Your task to perform on an android device: set an alarm Image 0: 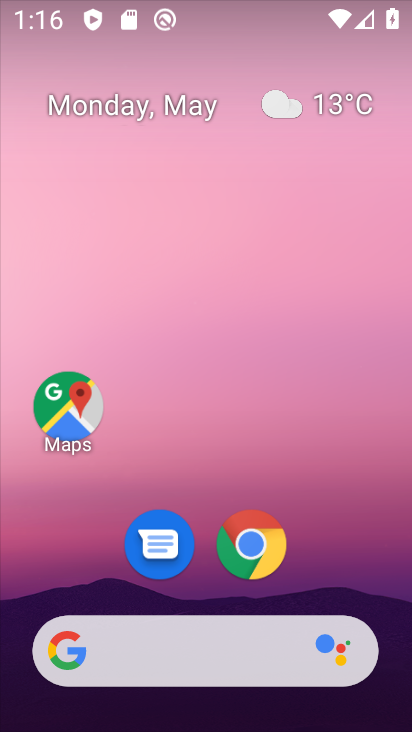
Step 0: drag from (404, 645) to (303, 89)
Your task to perform on an android device: set an alarm Image 1: 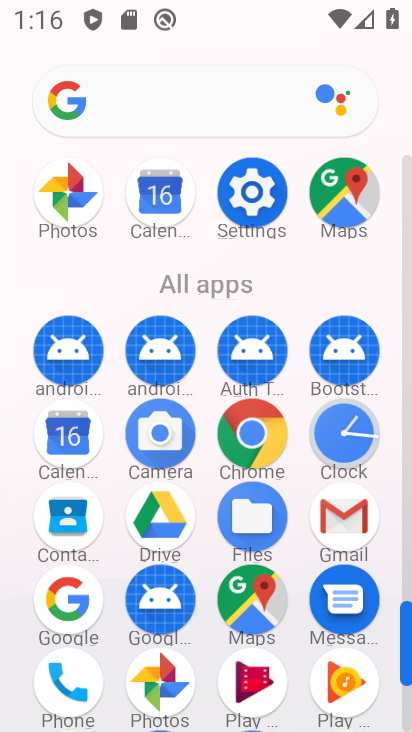
Step 1: click (343, 432)
Your task to perform on an android device: set an alarm Image 2: 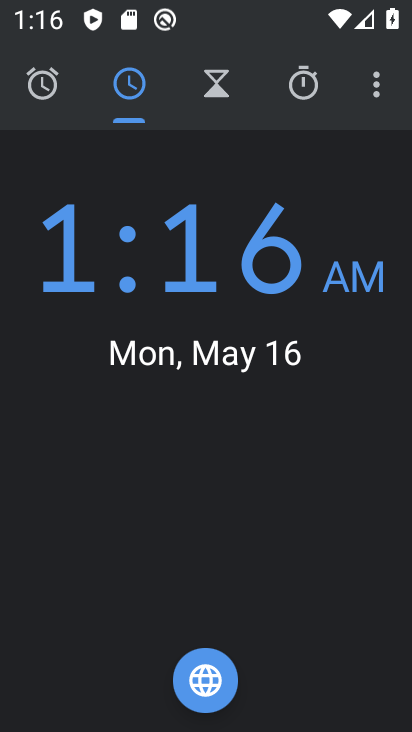
Step 2: click (44, 86)
Your task to perform on an android device: set an alarm Image 3: 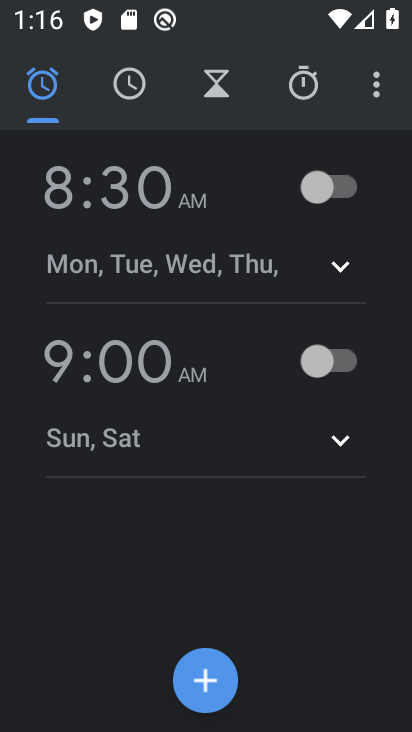
Step 3: click (82, 210)
Your task to perform on an android device: set an alarm Image 4: 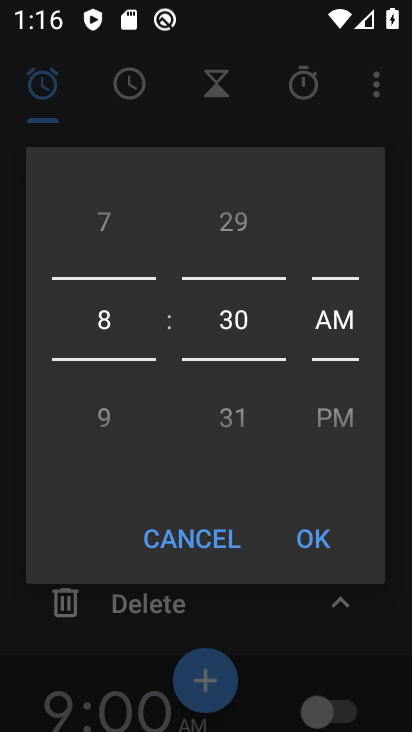
Step 4: drag from (109, 259) to (120, 442)
Your task to perform on an android device: set an alarm Image 5: 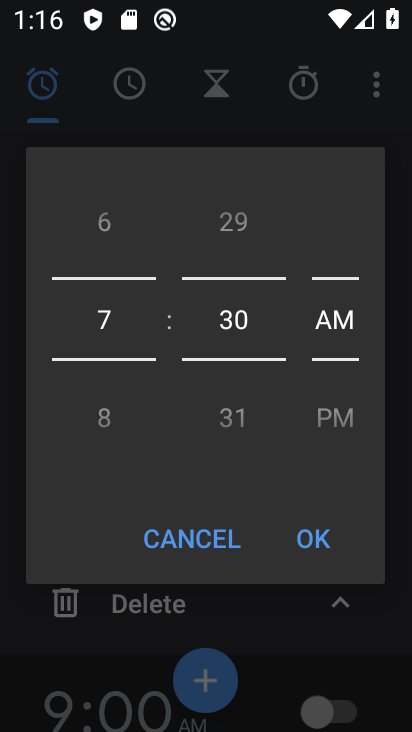
Step 5: drag from (103, 237) to (110, 373)
Your task to perform on an android device: set an alarm Image 6: 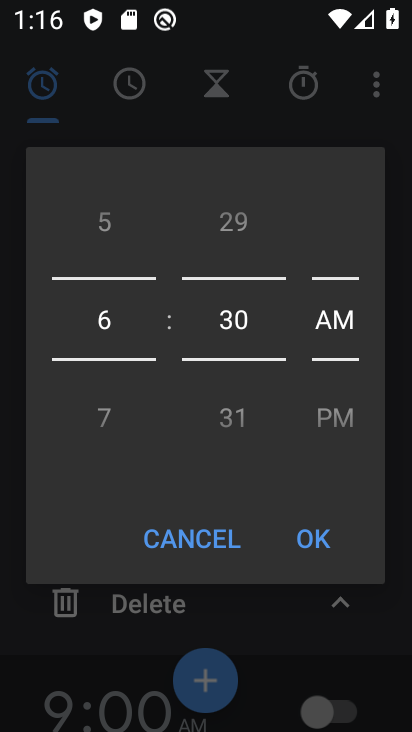
Step 6: click (312, 535)
Your task to perform on an android device: set an alarm Image 7: 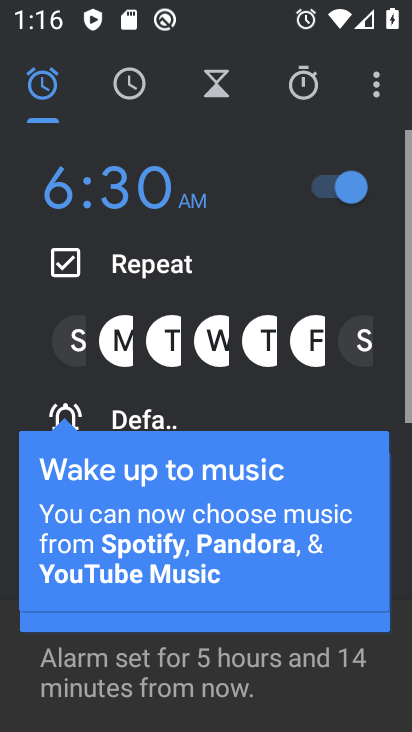
Step 7: click (312, 535)
Your task to perform on an android device: set an alarm Image 8: 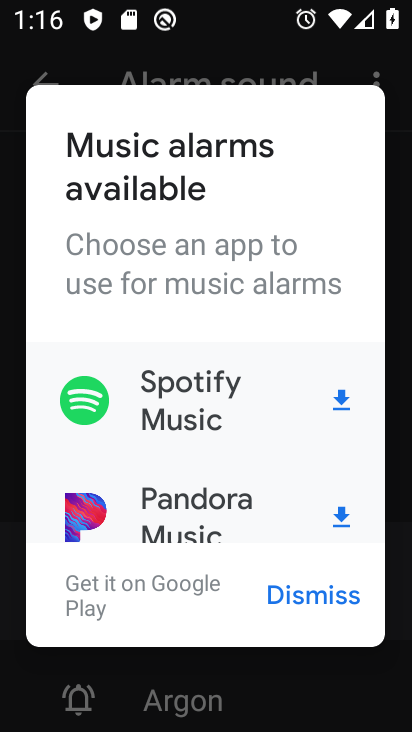
Step 8: click (310, 581)
Your task to perform on an android device: set an alarm Image 9: 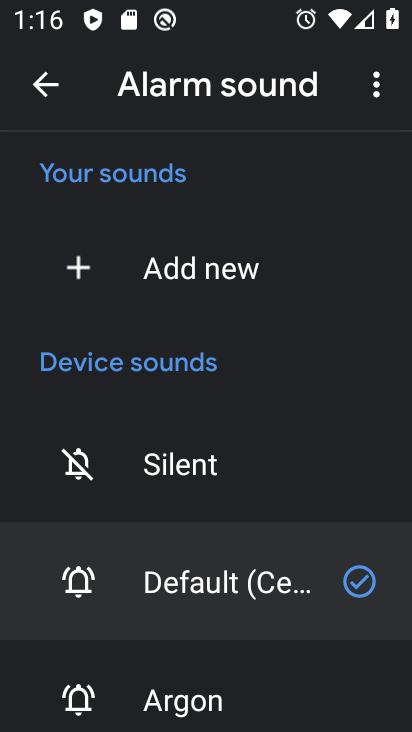
Step 9: drag from (305, 559) to (295, 169)
Your task to perform on an android device: set an alarm Image 10: 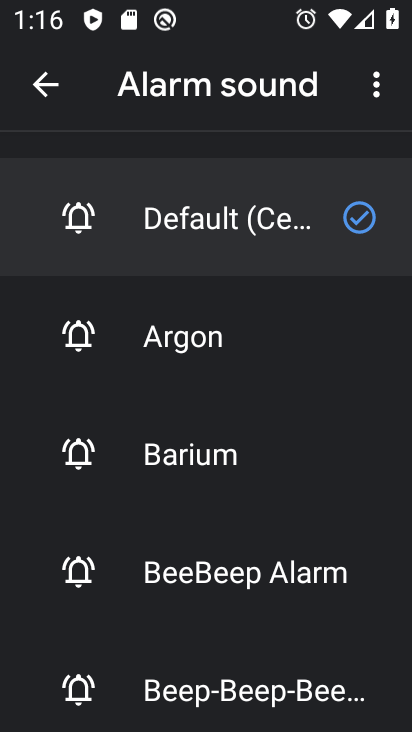
Step 10: click (238, 565)
Your task to perform on an android device: set an alarm Image 11: 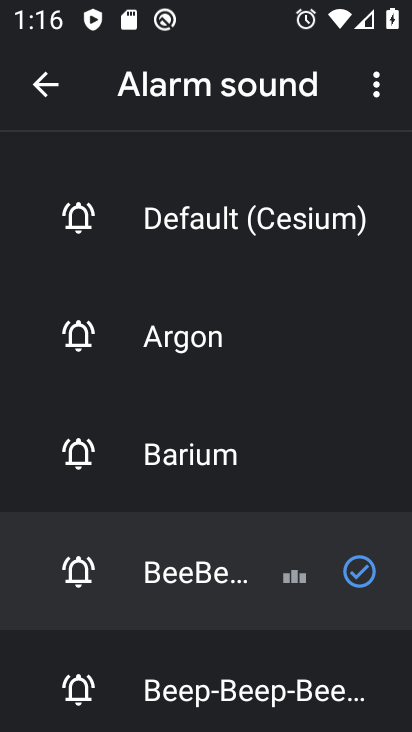
Step 11: press back button
Your task to perform on an android device: set an alarm Image 12: 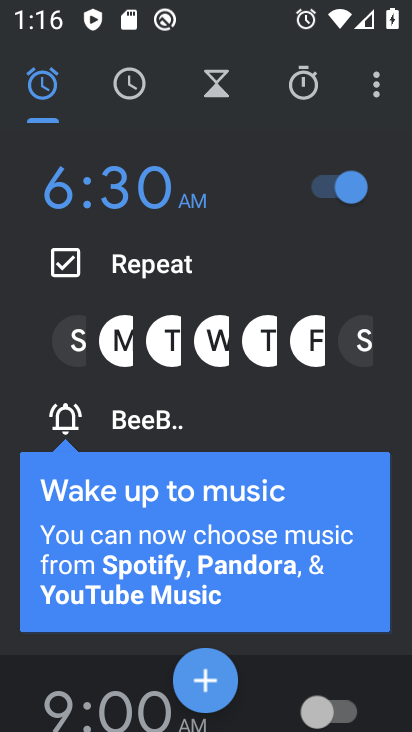
Step 12: click (362, 352)
Your task to perform on an android device: set an alarm Image 13: 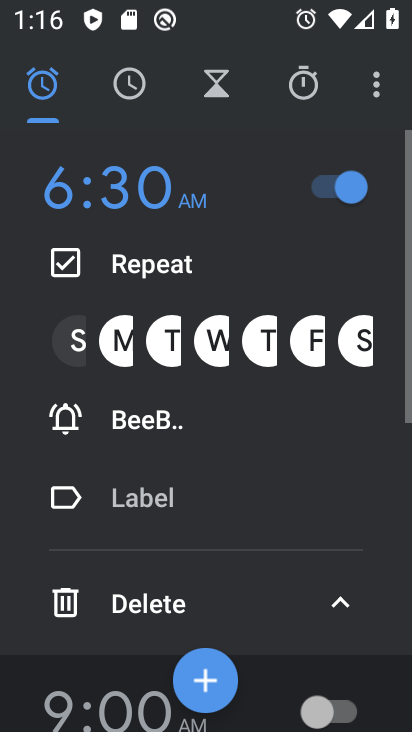
Step 13: click (341, 597)
Your task to perform on an android device: set an alarm Image 14: 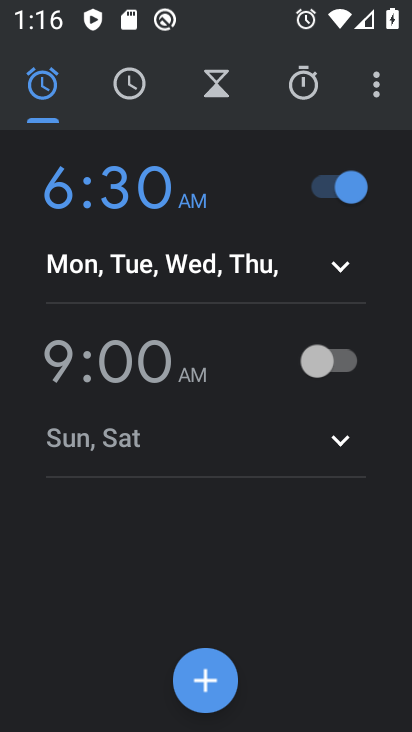
Step 14: task complete